Your task to perform on an android device: turn on the 12-hour format for clock Image 0: 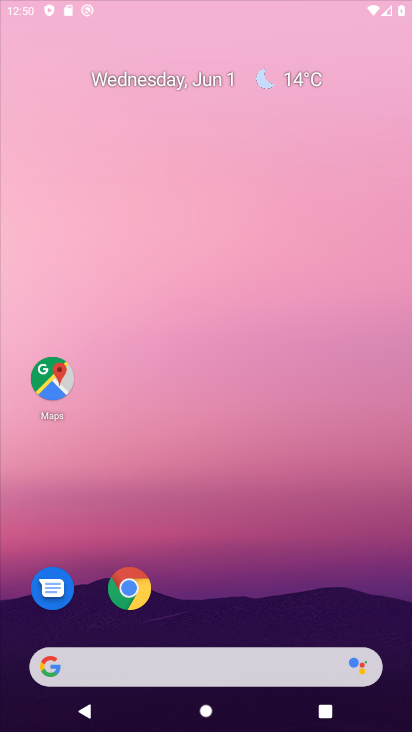
Step 0: drag from (290, 192) to (273, 25)
Your task to perform on an android device: turn on the 12-hour format for clock Image 1: 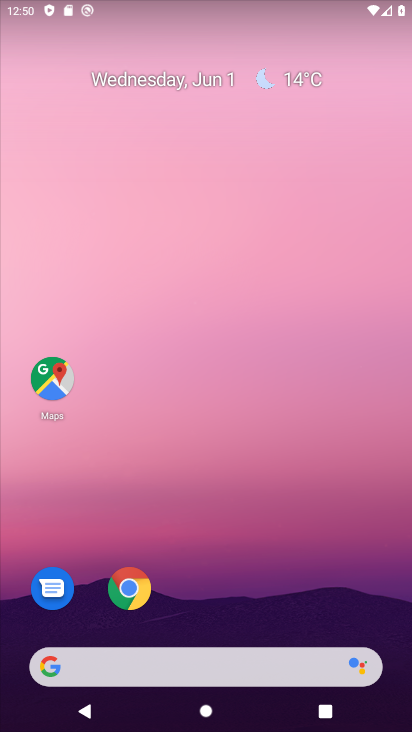
Step 1: drag from (306, 551) to (190, 11)
Your task to perform on an android device: turn on the 12-hour format for clock Image 2: 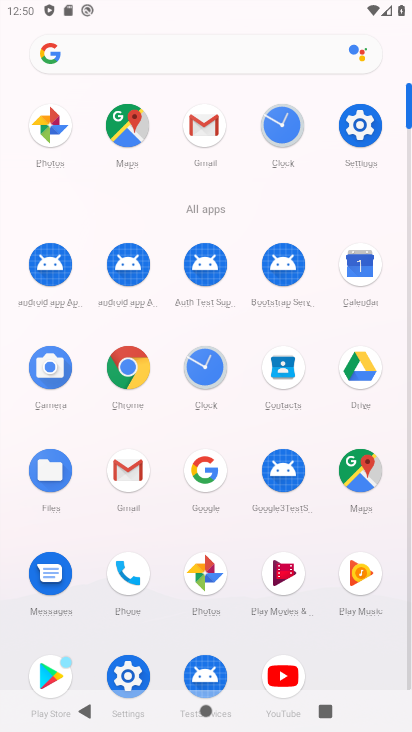
Step 2: click (283, 96)
Your task to perform on an android device: turn on the 12-hour format for clock Image 3: 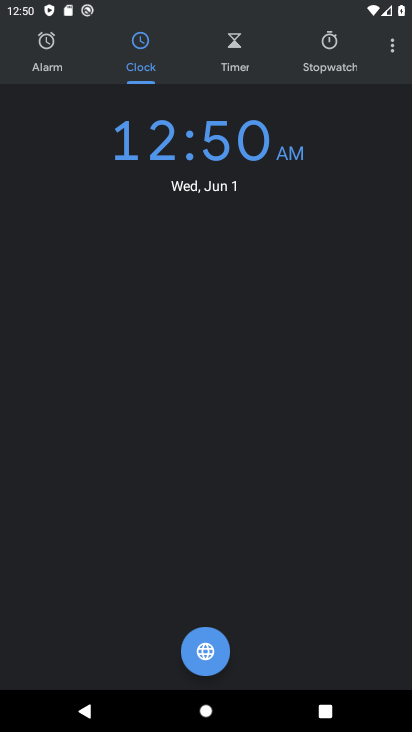
Step 3: click (390, 43)
Your task to perform on an android device: turn on the 12-hour format for clock Image 4: 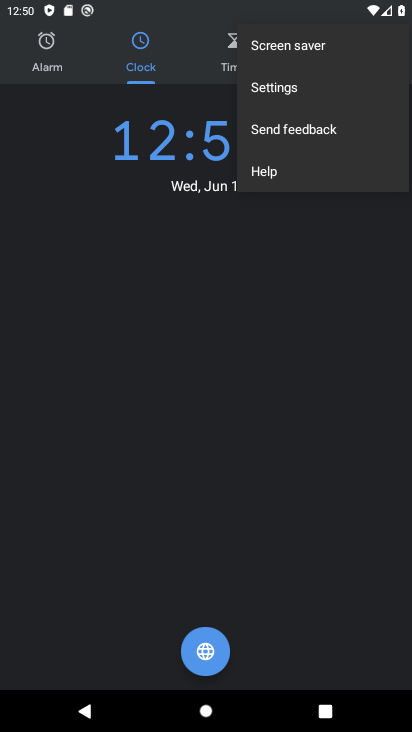
Step 4: click (296, 88)
Your task to perform on an android device: turn on the 12-hour format for clock Image 5: 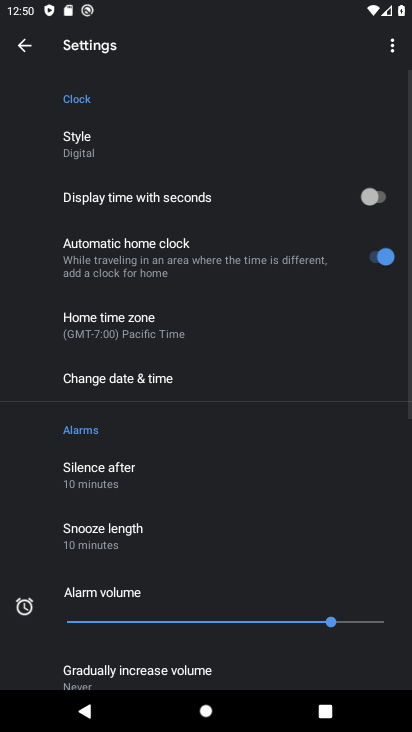
Step 5: click (232, 375)
Your task to perform on an android device: turn on the 12-hour format for clock Image 6: 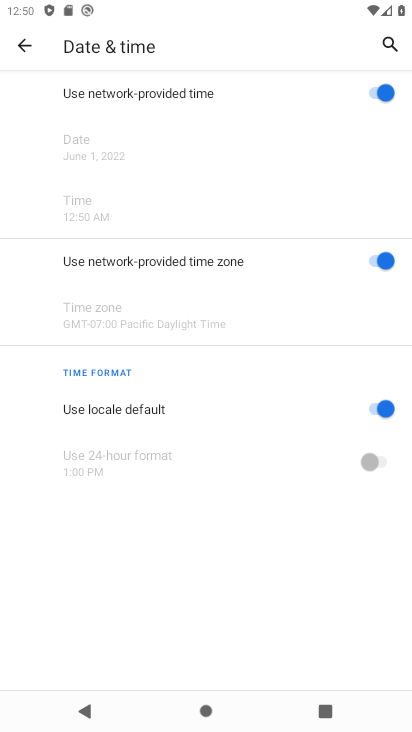
Step 6: task complete